Your task to perform on an android device: Check the weather Image 0: 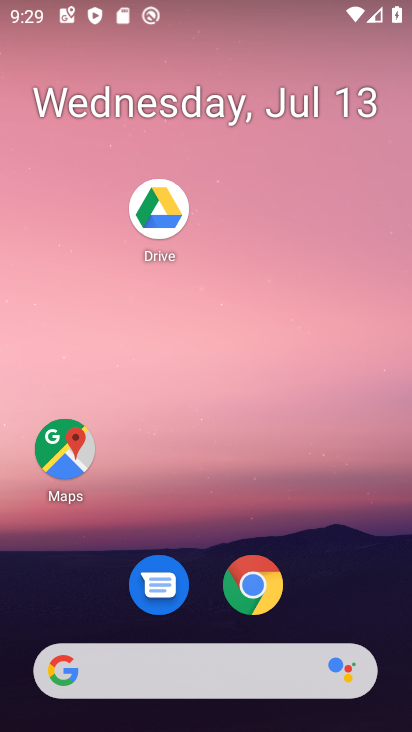
Step 0: press home button
Your task to perform on an android device: Check the weather Image 1: 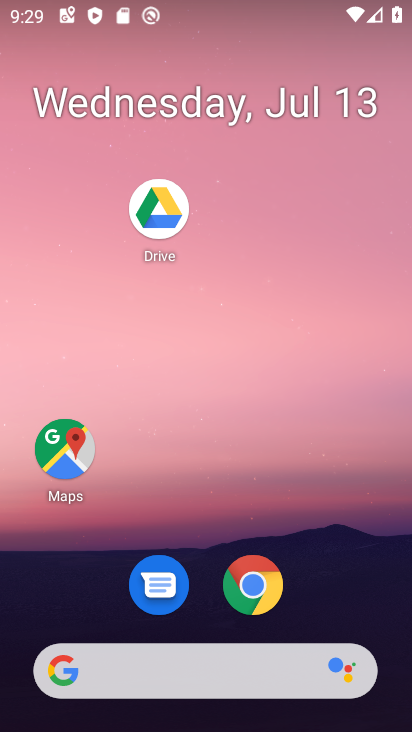
Step 1: click (174, 677)
Your task to perform on an android device: Check the weather Image 2: 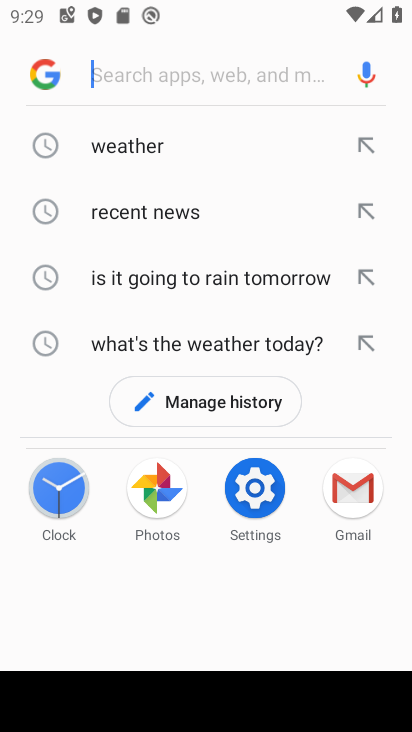
Step 2: click (117, 147)
Your task to perform on an android device: Check the weather Image 3: 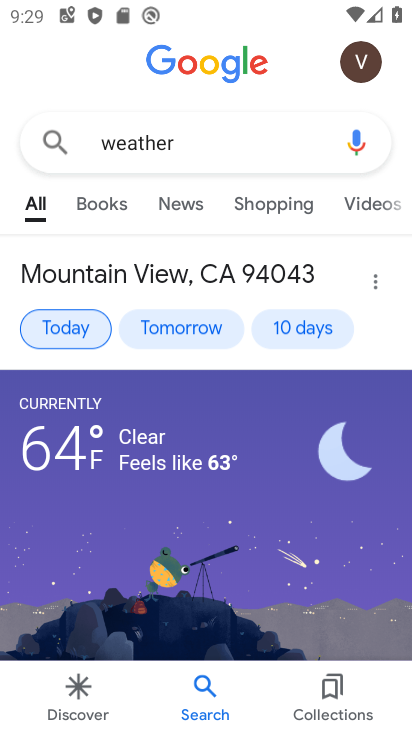
Step 3: task complete